Your task to perform on an android device: all mails in gmail Image 0: 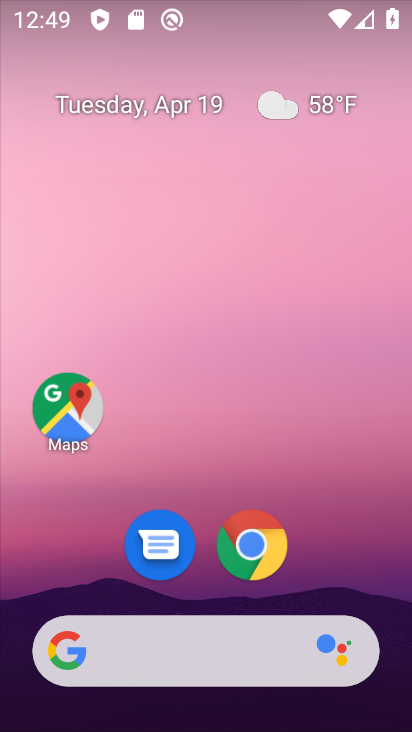
Step 0: drag from (245, 371) to (292, 29)
Your task to perform on an android device: all mails in gmail Image 1: 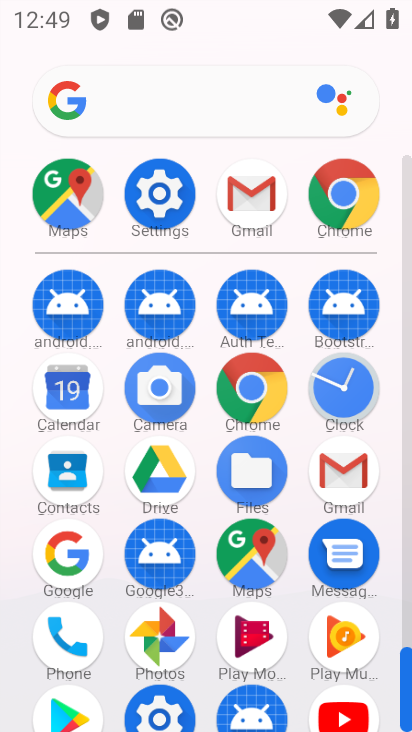
Step 1: click (246, 201)
Your task to perform on an android device: all mails in gmail Image 2: 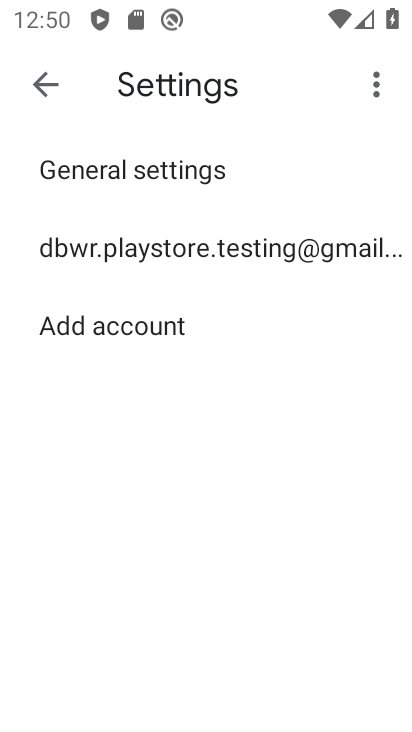
Step 2: click (39, 75)
Your task to perform on an android device: all mails in gmail Image 3: 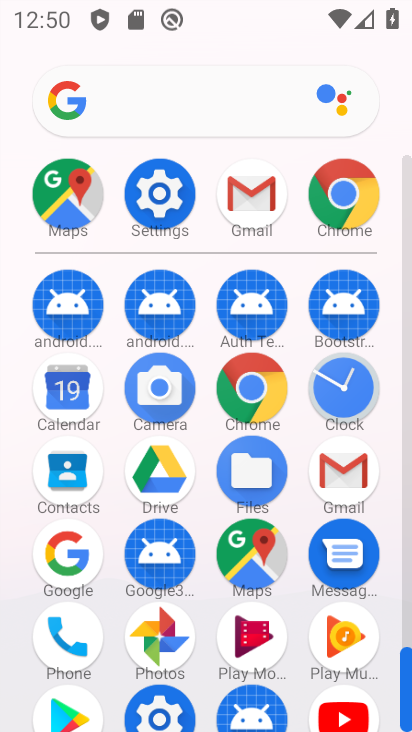
Step 3: click (254, 198)
Your task to perform on an android device: all mails in gmail Image 4: 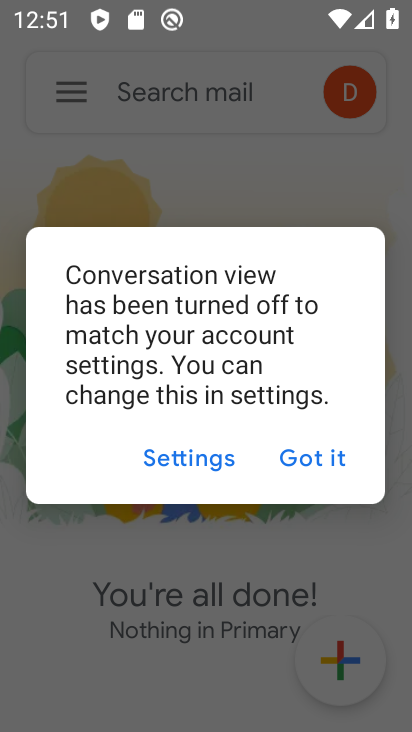
Step 4: click (287, 449)
Your task to perform on an android device: all mails in gmail Image 5: 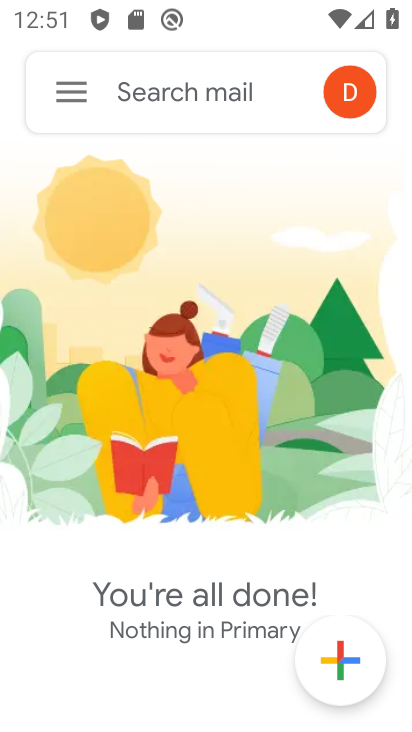
Step 5: click (64, 83)
Your task to perform on an android device: all mails in gmail Image 6: 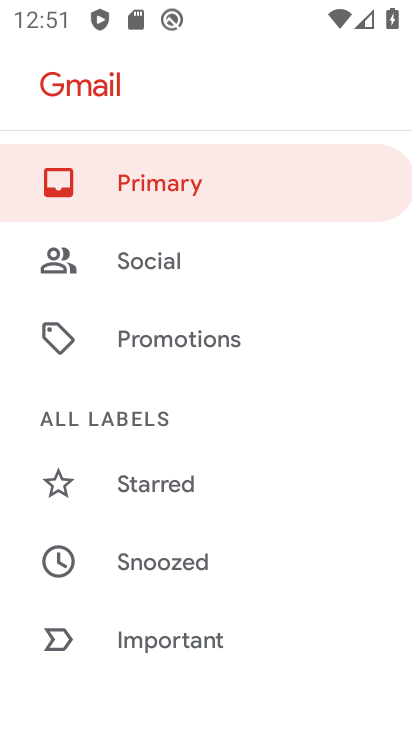
Step 6: drag from (168, 602) to (279, 111)
Your task to perform on an android device: all mails in gmail Image 7: 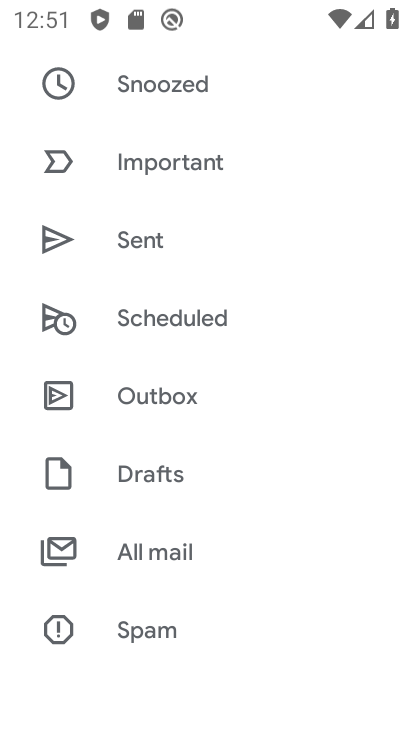
Step 7: click (140, 560)
Your task to perform on an android device: all mails in gmail Image 8: 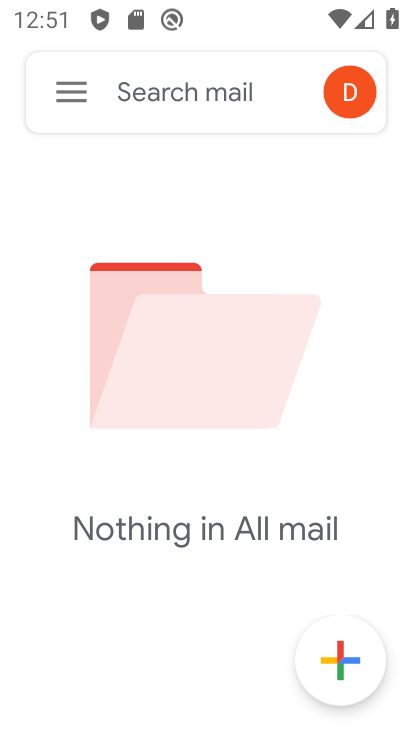
Step 8: task complete